Your task to perform on an android device: Open calendar and show me the second week of next month Image 0: 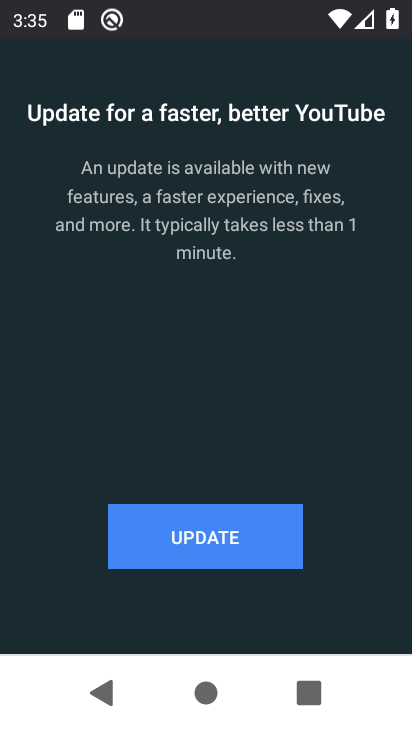
Step 0: drag from (233, 558) to (248, 261)
Your task to perform on an android device: Open calendar and show me the second week of next month Image 1: 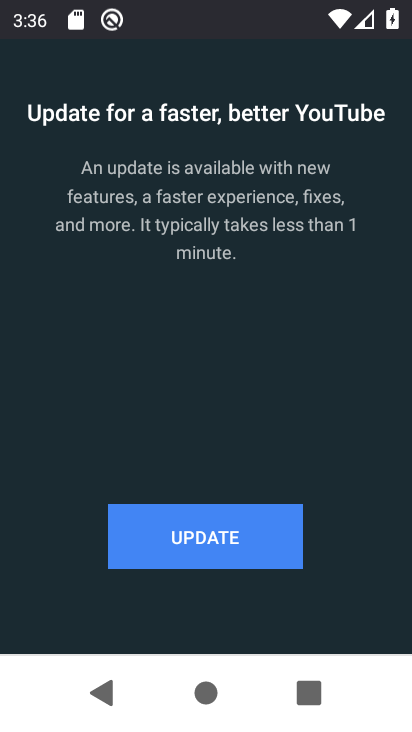
Step 1: press home button
Your task to perform on an android device: Open calendar and show me the second week of next month Image 2: 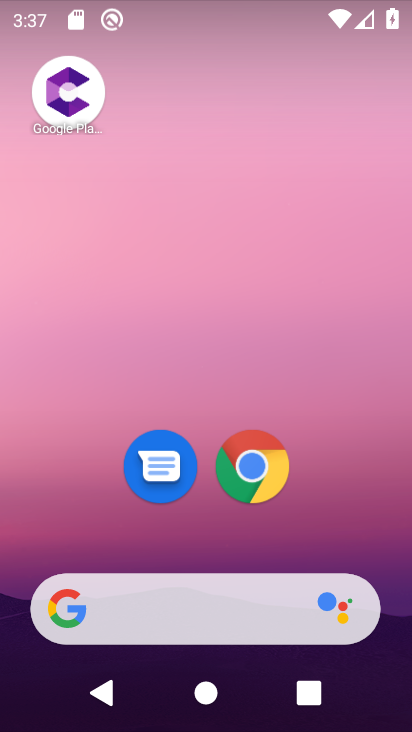
Step 2: drag from (208, 549) to (253, 66)
Your task to perform on an android device: Open calendar and show me the second week of next month Image 3: 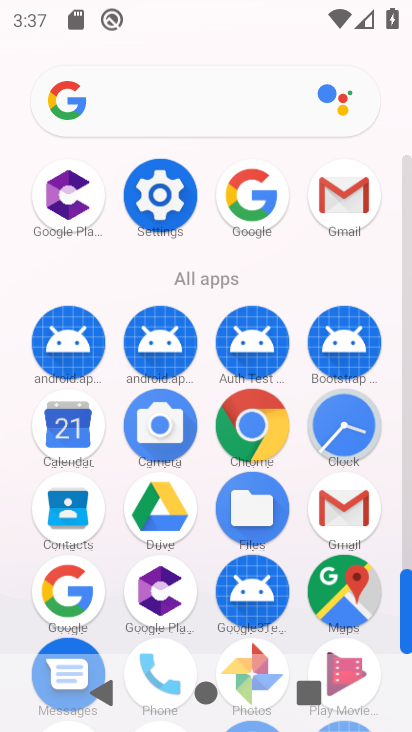
Step 3: click (84, 428)
Your task to perform on an android device: Open calendar and show me the second week of next month Image 4: 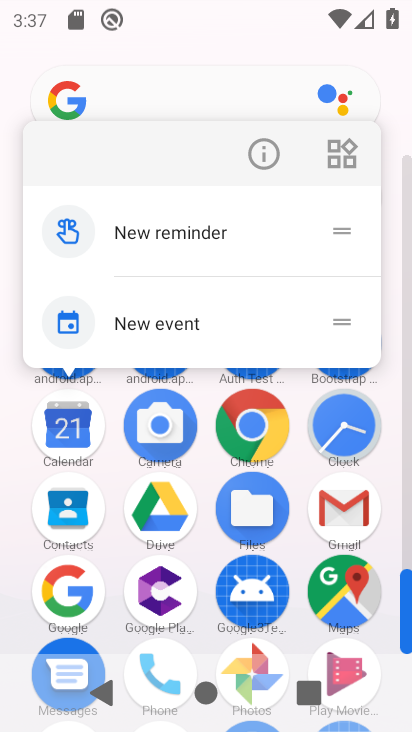
Step 4: click (84, 428)
Your task to perform on an android device: Open calendar and show me the second week of next month Image 5: 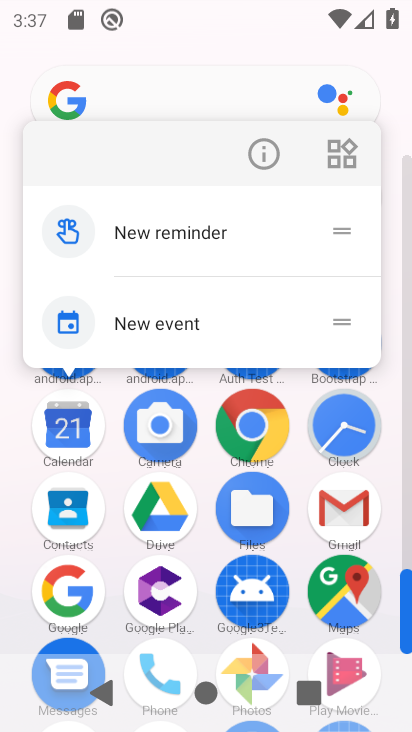
Step 5: click (84, 428)
Your task to perform on an android device: Open calendar and show me the second week of next month Image 6: 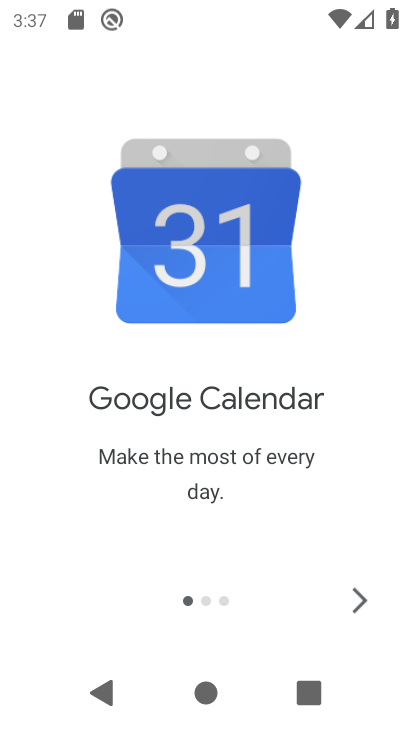
Step 6: click (372, 602)
Your task to perform on an android device: Open calendar and show me the second week of next month Image 7: 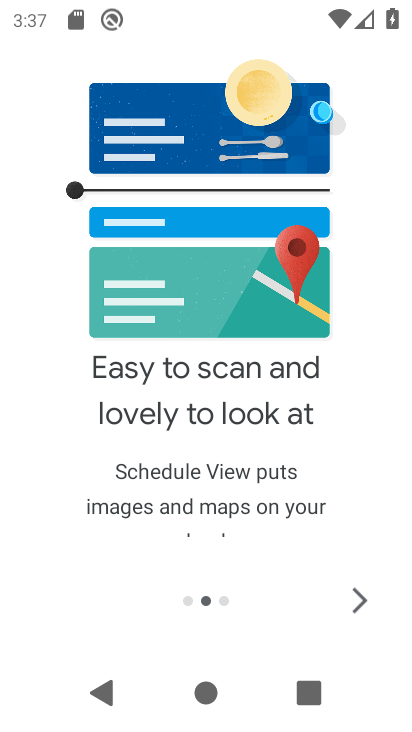
Step 7: click (365, 597)
Your task to perform on an android device: Open calendar and show me the second week of next month Image 8: 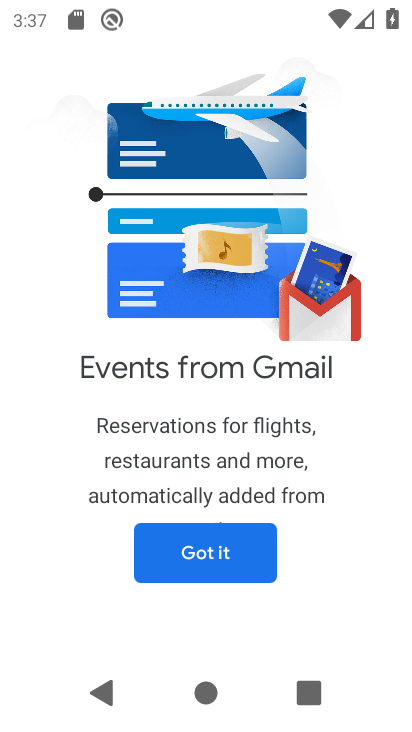
Step 8: click (267, 567)
Your task to perform on an android device: Open calendar and show me the second week of next month Image 9: 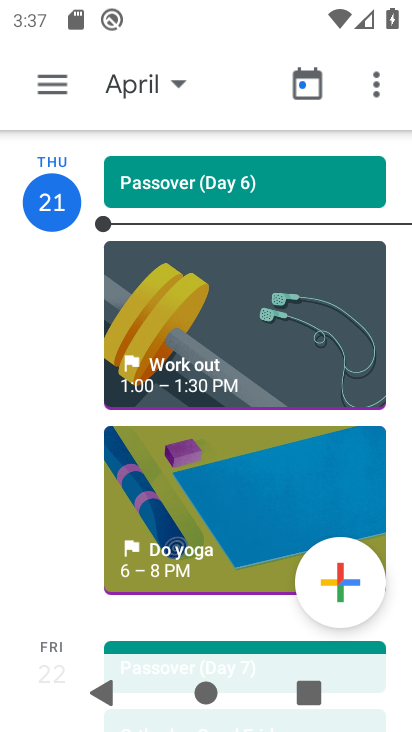
Step 9: click (167, 99)
Your task to perform on an android device: Open calendar and show me the second week of next month Image 10: 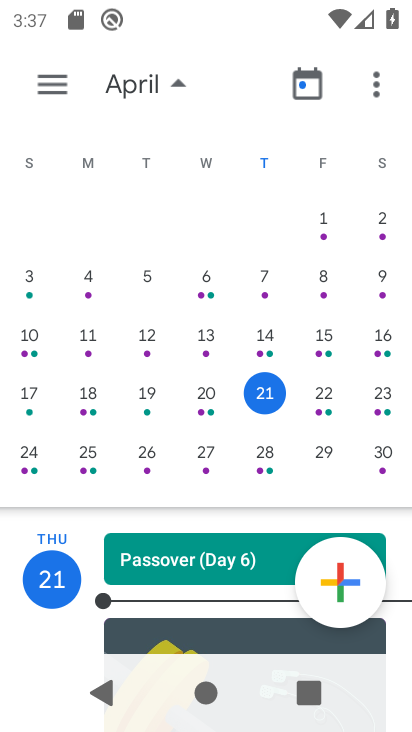
Step 10: drag from (389, 338) to (12, 186)
Your task to perform on an android device: Open calendar and show me the second week of next month Image 11: 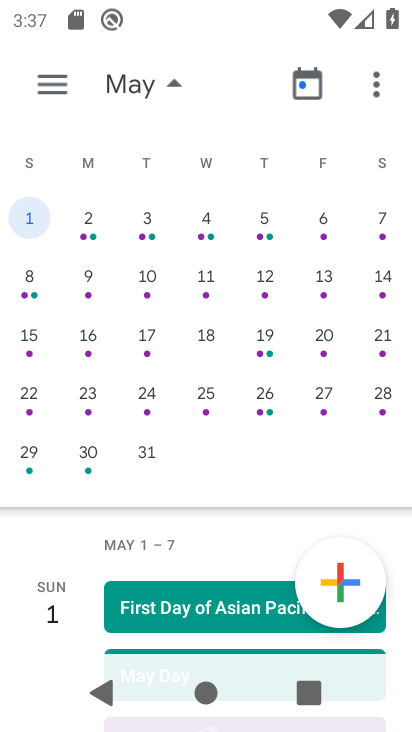
Step 11: click (54, 96)
Your task to perform on an android device: Open calendar and show me the second week of next month Image 12: 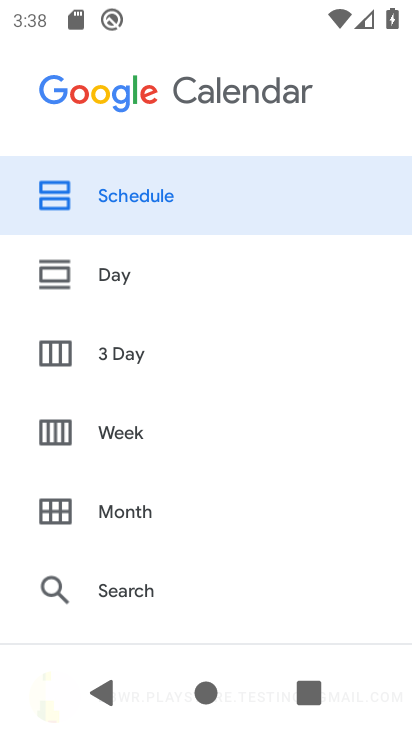
Step 12: click (180, 434)
Your task to perform on an android device: Open calendar and show me the second week of next month Image 13: 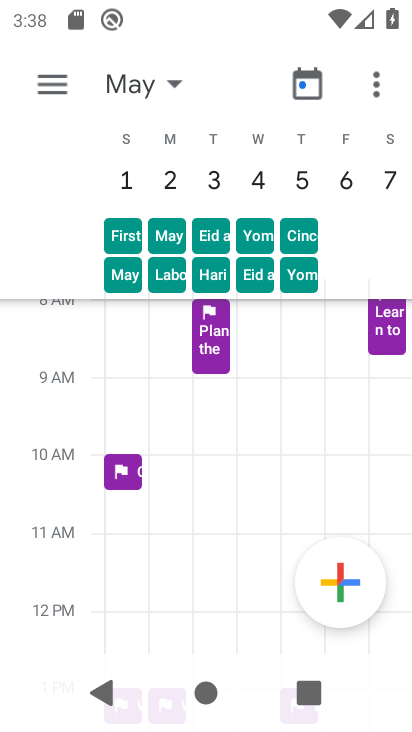
Step 13: task complete